Your task to perform on an android device: toggle wifi Image 0: 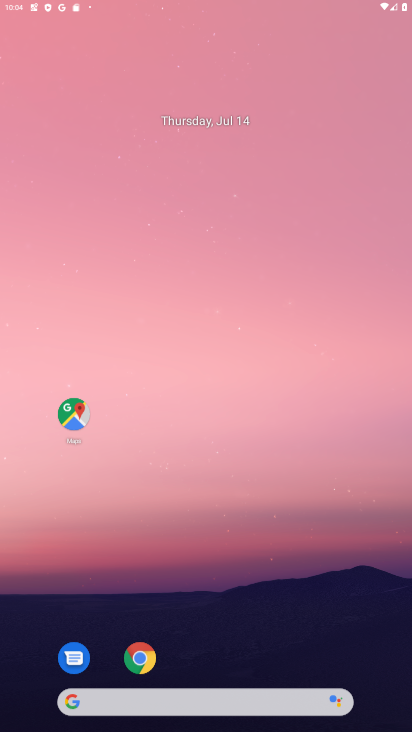
Step 0: drag from (343, 613) to (290, 221)
Your task to perform on an android device: toggle wifi Image 1: 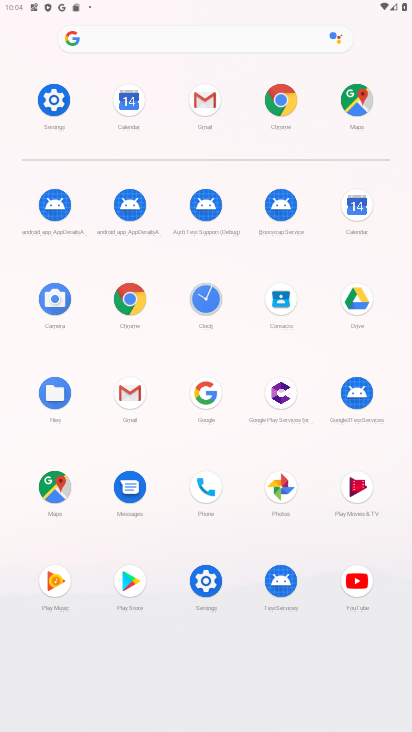
Step 1: click (54, 87)
Your task to perform on an android device: toggle wifi Image 2: 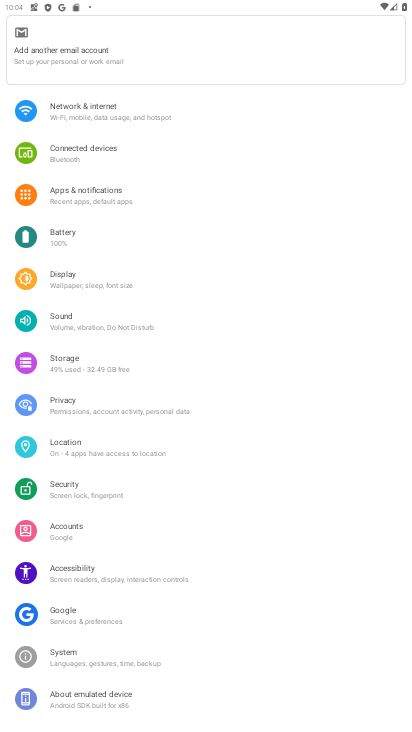
Step 2: click (75, 115)
Your task to perform on an android device: toggle wifi Image 3: 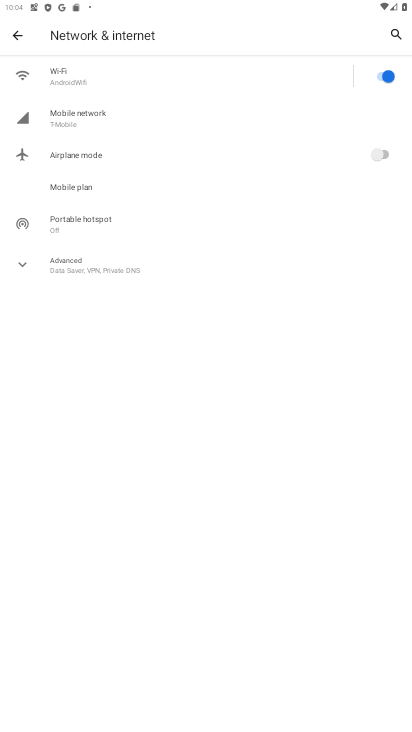
Step 3: click (385, 79)
Your task to perform on an android device: toggle wifi Image 4: 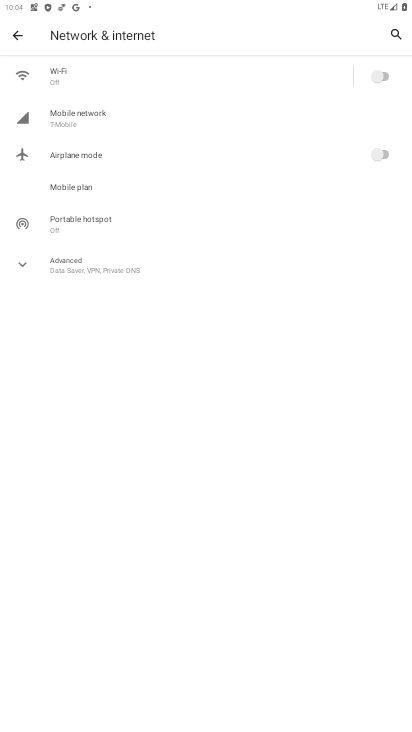
Step 4: task complete